Your task to perform on an android device: set the timer Image 0: 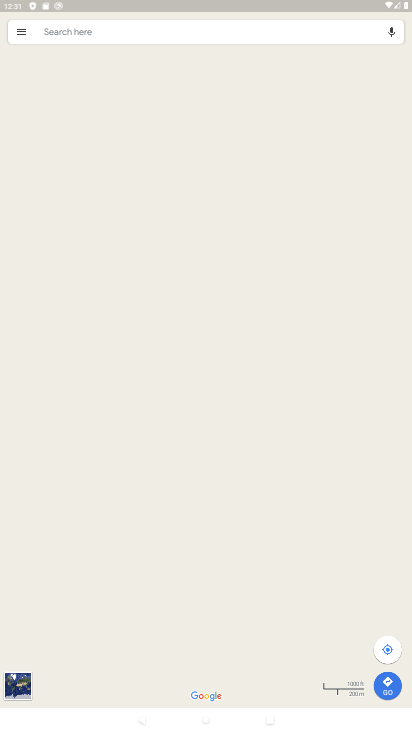
Step 0: press home button
Your task to perform on an android device: set the timer Image 1: 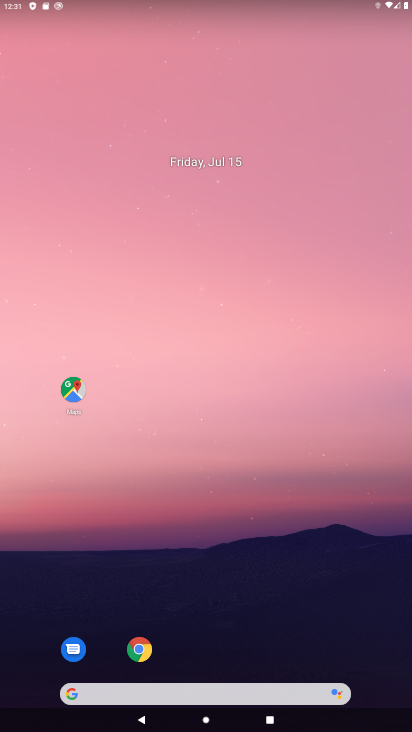
Step 1: drag from (197, 641) to (216, 185)
Your task to perform on an android device: set the timer Image 2: 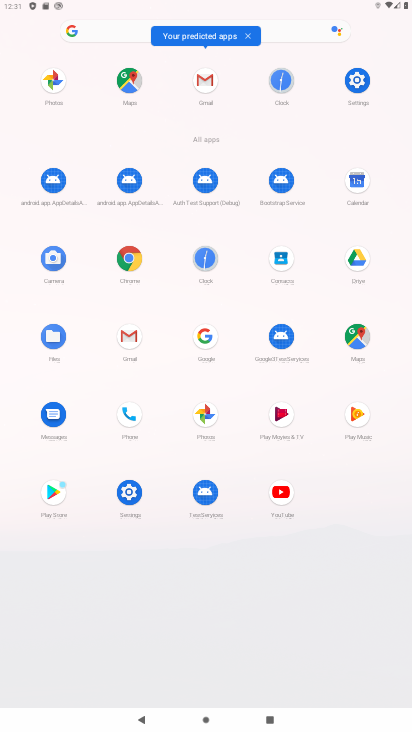
Step 2: click (210, 258)
Your task to perform on an android device: set the timer Image 3: 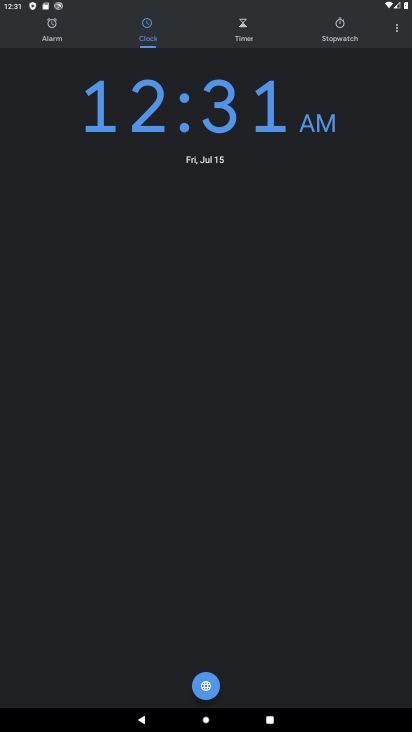
Step 3: click (238, 30)
Your task to perform on an android device: set the timer Image 4: 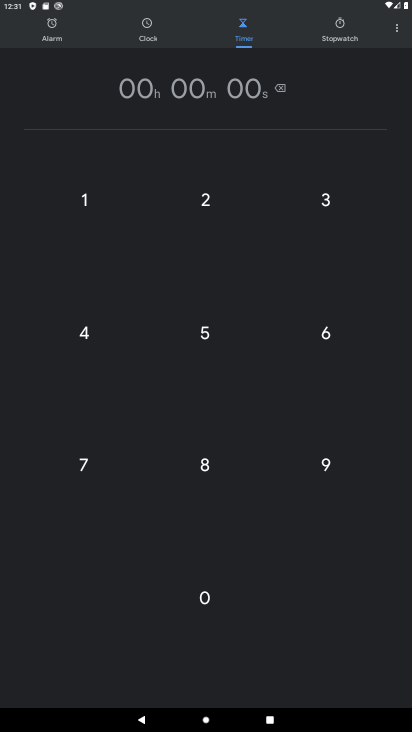
Step 4: click (209, 203)
Your task to perform on an android device: set the timer Image 5: 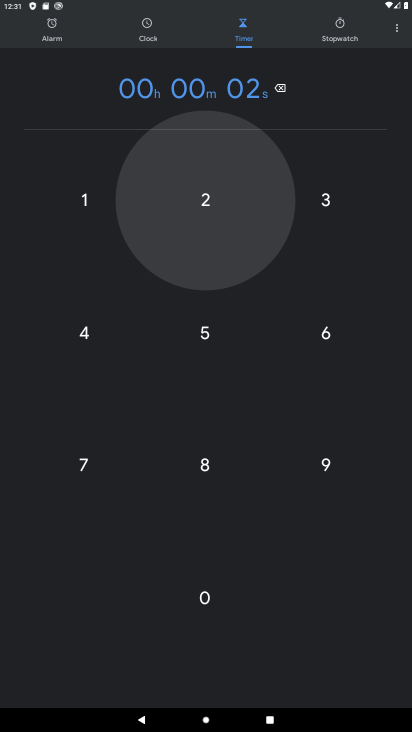
Step 5: click (218, 355)
Your task to perform on an android device: set the timer Image 6: 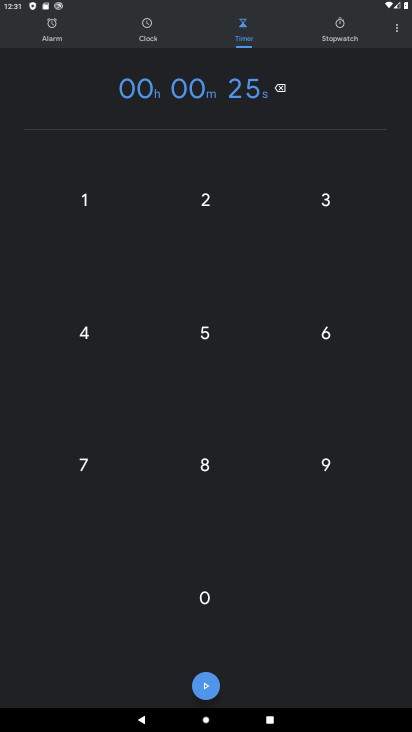
Step 6: click (216, 198)
Your task to perform on an android device: set the timer Image 7: 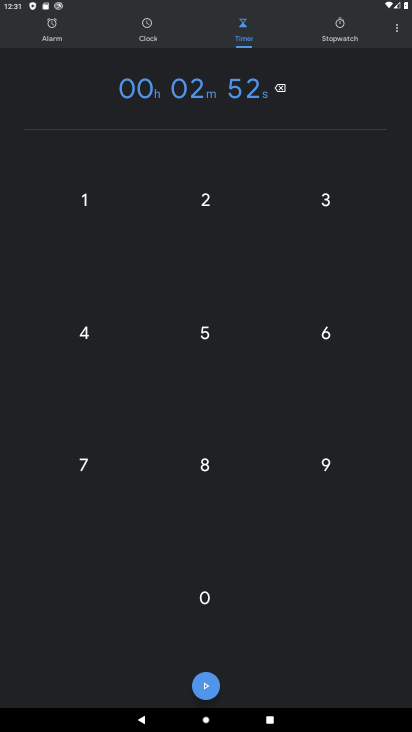
Step 7: click (215, 228)
Your task to perform on an android device: set the timer Image 8: 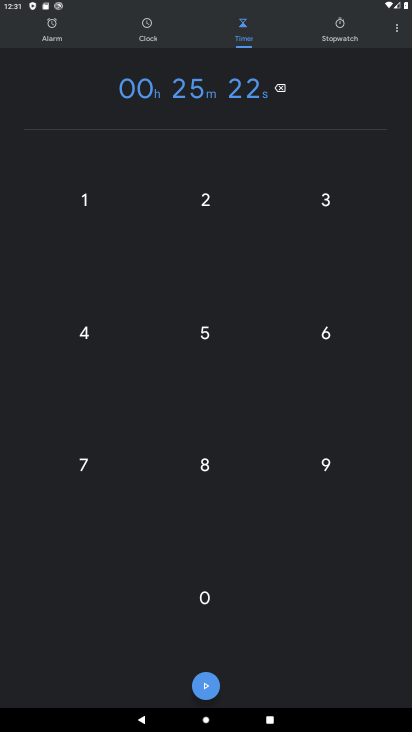
Step 8: click (218, 688)
Your task to perform on an android device: set the timer Image 9: 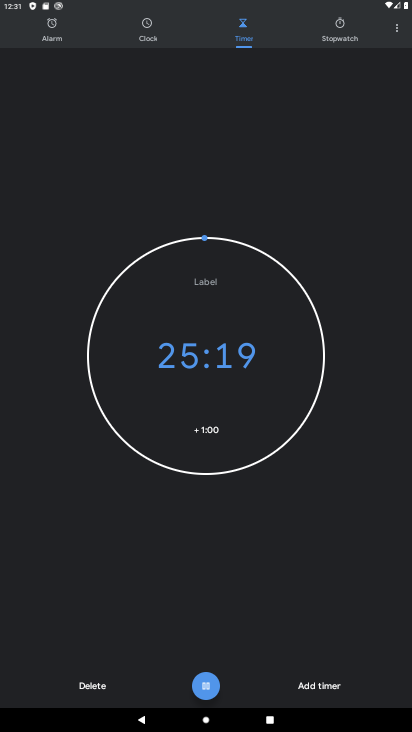
Step 9: task complete